Your task to perform on an android device: empty trash in the gmail app Image 0: 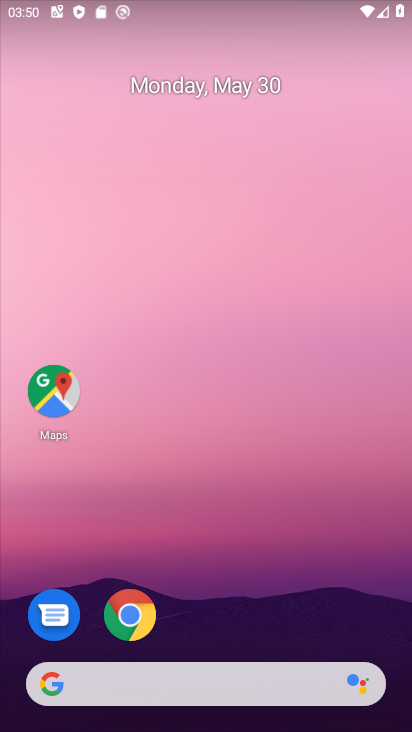
Step 0: drag from (283, 601) to (239, 148)
Your task to perform on an android device: empty trash in the gmail app Image 1: 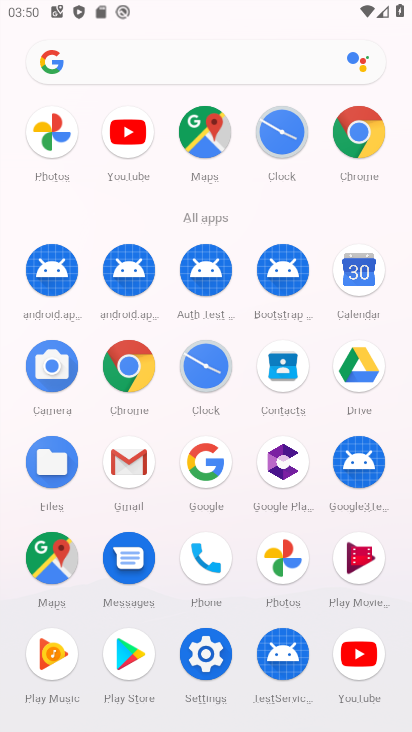
Step 1: click (127, 460)
Your task to perform on an android device: empty trash in the gmail app Image 2: 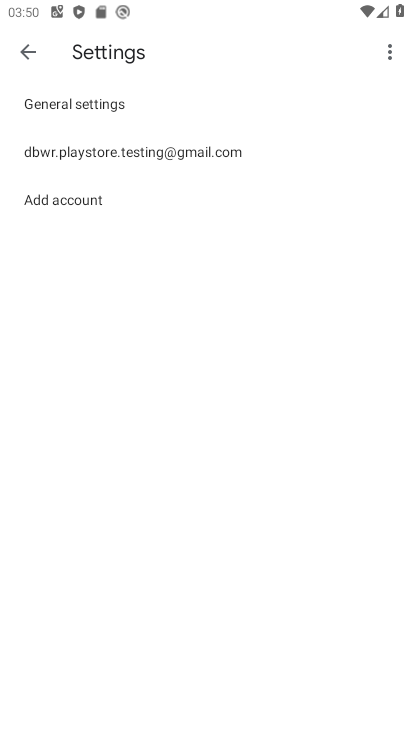
Step 2: click (31, 56)
Your task to perform on an android device: empty trash in the gmail app Image 3: 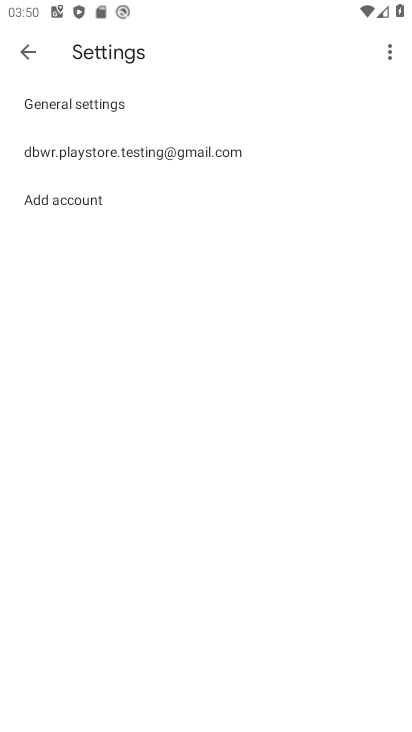
Step 3: click (31, 56)
Your task to perform on an android device: empty trash in the gmail app Image 4: 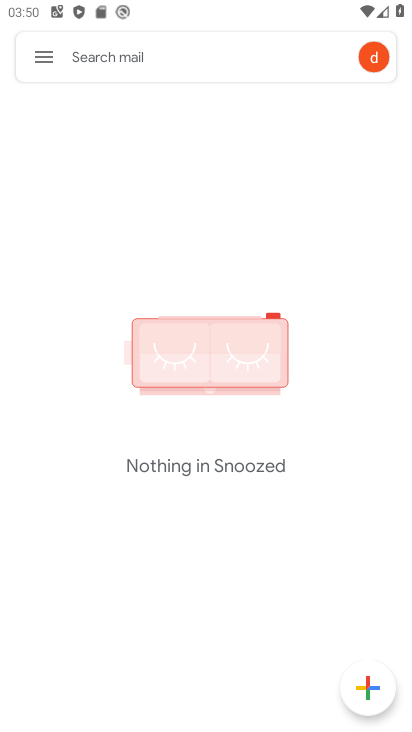
Step 4: click (31, 56)
Your task to perform on an android device: empty trash in the gmail app Image 5: 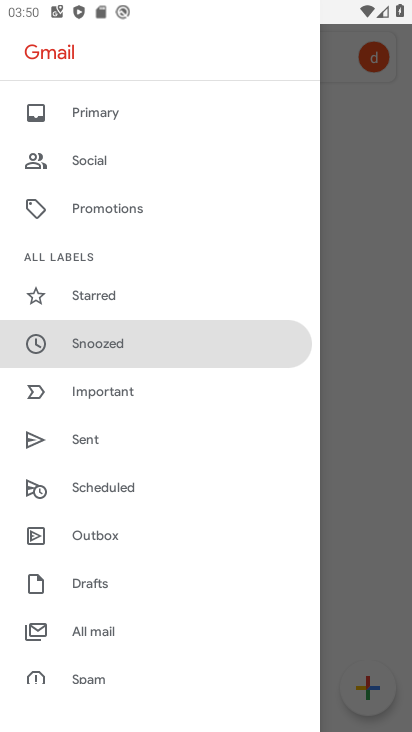
Step 5: drag from (84, 607) to (156, 520)
Your task to perform on an android device: empty trash in the gmail app Image 6: 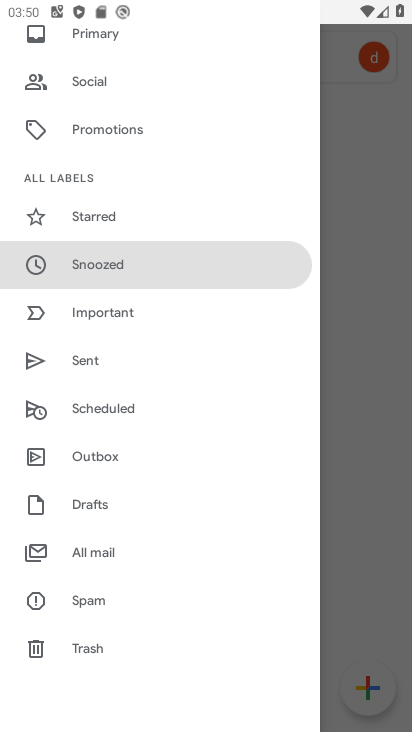
Step 6: click (94, 645)
Your task to perform on an android device: empty trash in the gmail app Image 7: 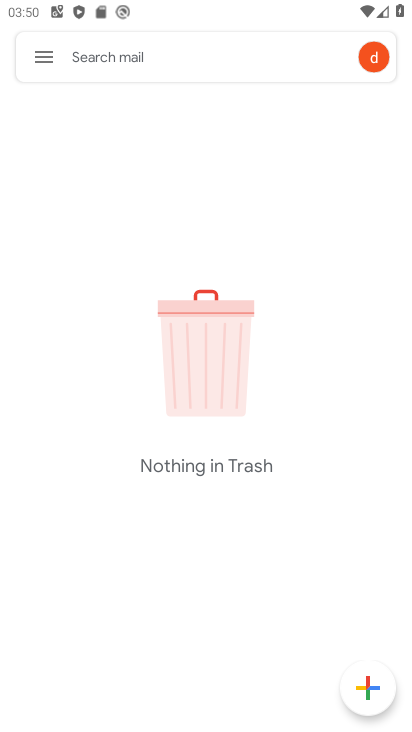
Step 7: task complete